Your task to perform on an android device: toggle wifi Image 0: 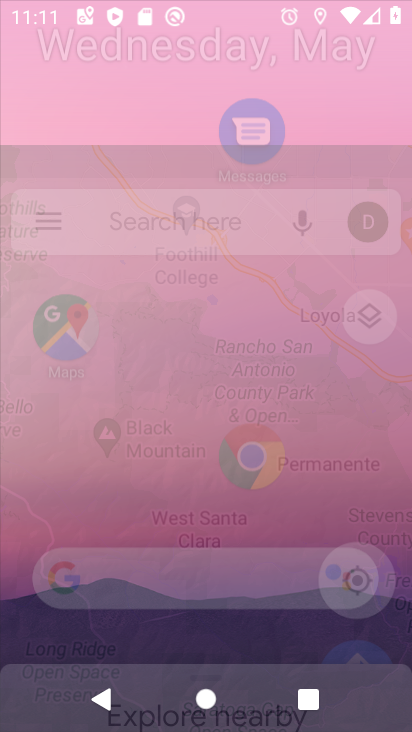
Step 0: press home button
Your task to perform on an android device: toggle wifi Image 1: 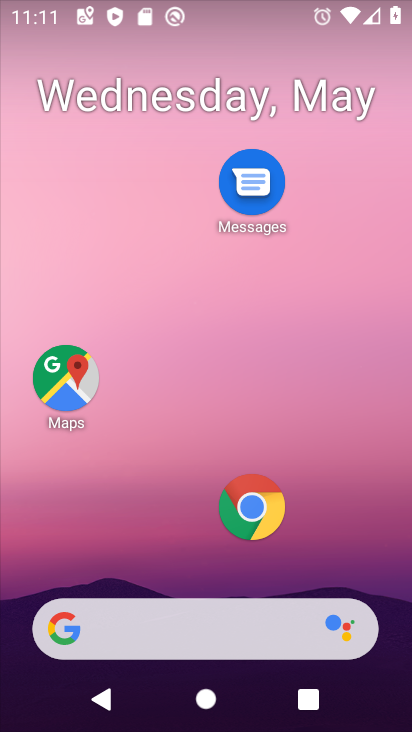
Step 1: drag from (196, 563) to (238, 130)
Your task to perform on an android device: toggle wifi Image 2: 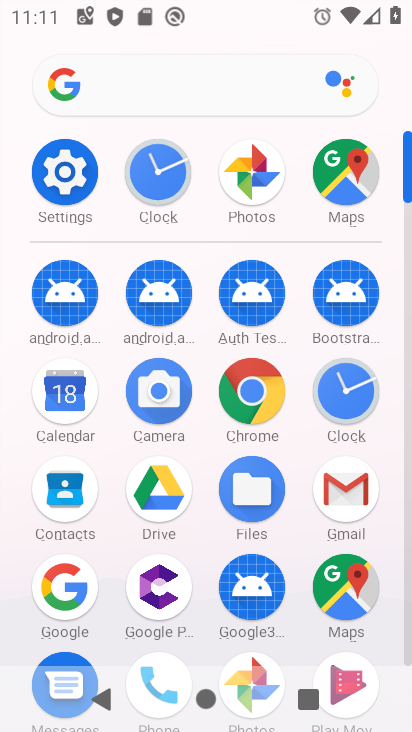
Step 2: click (65, 170)
Your task to perform on an android device: toggle wifi Image 3: 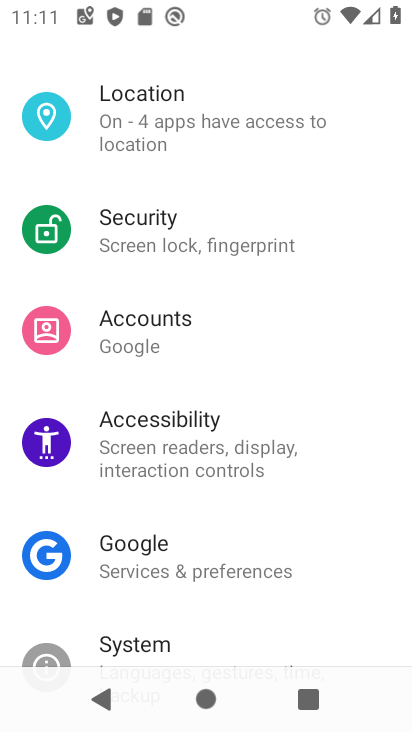
Step 3: drag from (220, 117) to (257, 512)
Your task to perform on an android device: toggle wifi Image 4: 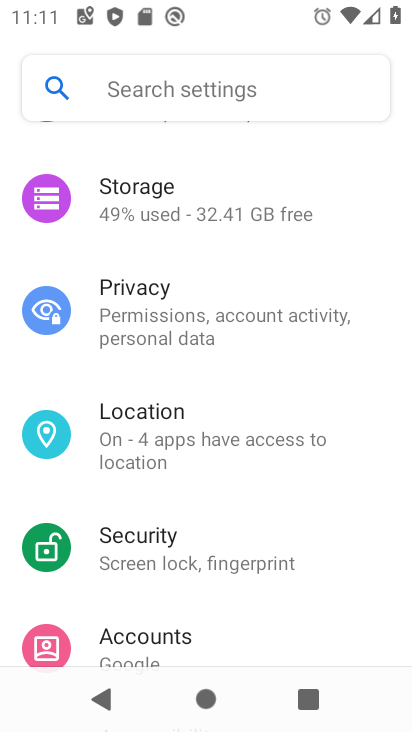
Step 4: drag from (206, 203) to (211, 574)
Your task to perform on an android device: toggle wifi Image 5: 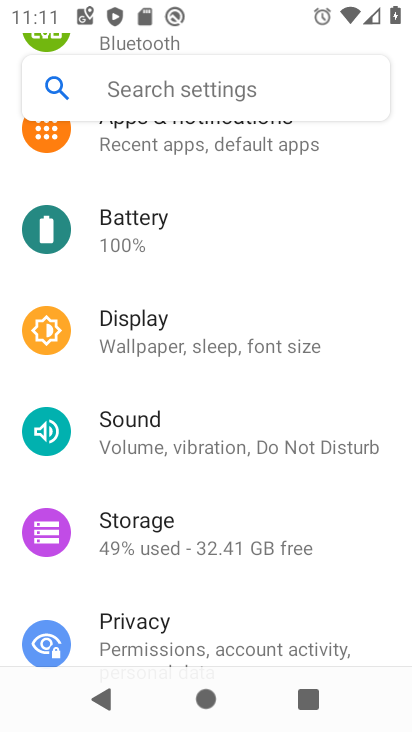
Step 5: drag from (182, 177) to (211, 731)
Your task to perform on an android device: toggle wifi Image 6: 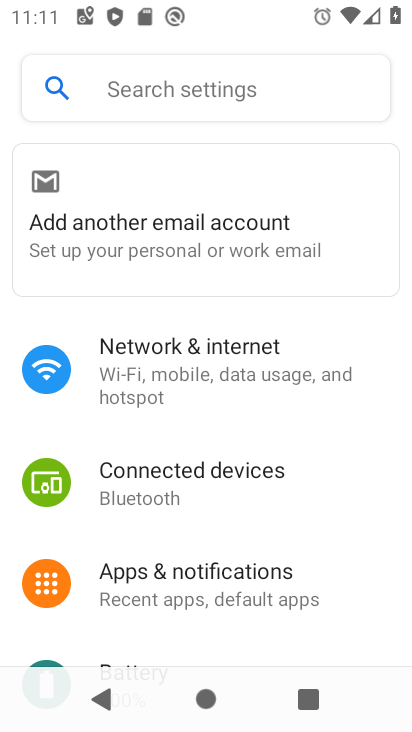
Step 6: click (174, 384)
Your task to perform on an android device: toggle wifi Image 7: 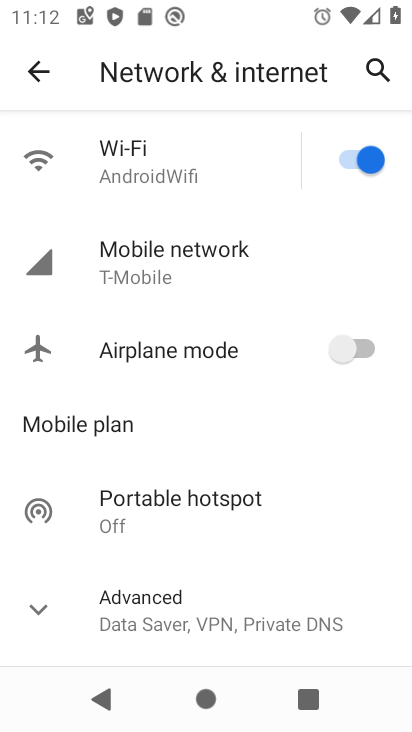
Step 7: click (260, 150)
Your task to perform on an android device: toggle wifi Image 8: 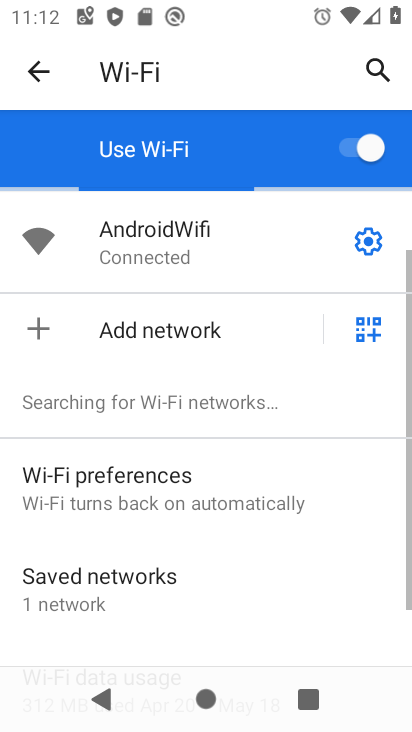
Step 8: task complete